Your task to perform on an android device: open app "Facebook" Image 0: 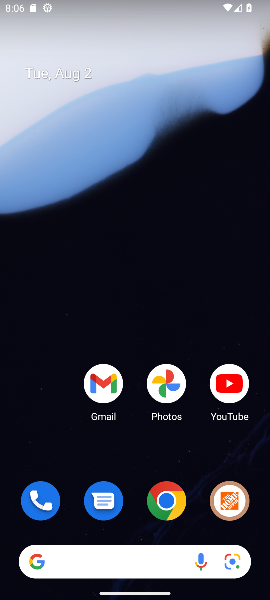
Step 0: drag from (129, 502) to (172, 189)
Your task to perform on an android device: open app "Facebook" Image 1: 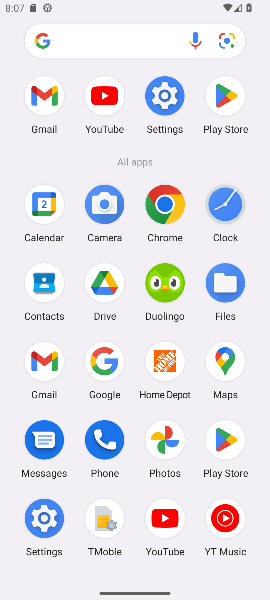
Step 1: click (224, 438)
Your task to perform on an android device: open app "Facebook" Image 2: 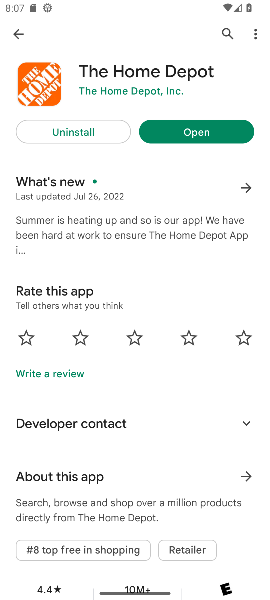
Step 2: click (228, 31)
Your task to perform on an android device: open app "Facebook" Image 3: 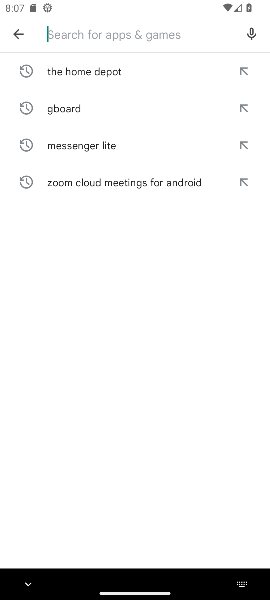
Step 3: type "Facebook"
Your task to perform on an android device: open app "Facebook" Image 4: 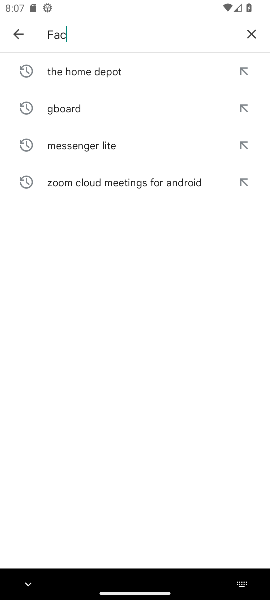
Step 4: type ""
Your task to perform on an android device: open app "Facebook" Image 5: 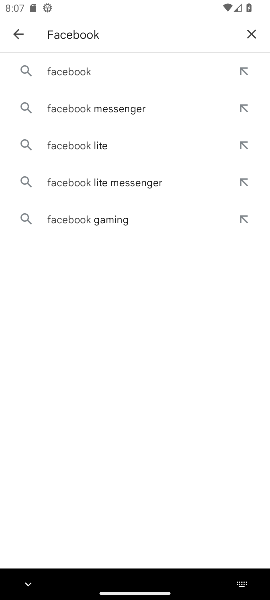
Step 5: click (116, 77)
Your task to perform on an android device: open app "Facebook" Image 6: 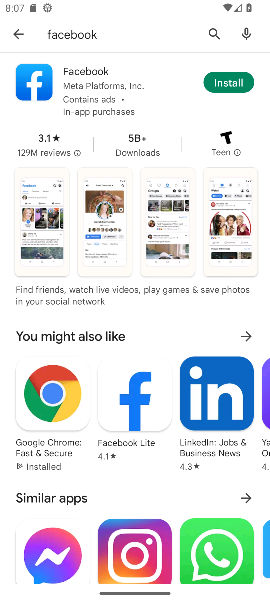
Step 6: click (95, 92)
Your task to perform on an android device: open app "Facebook" Image 7: 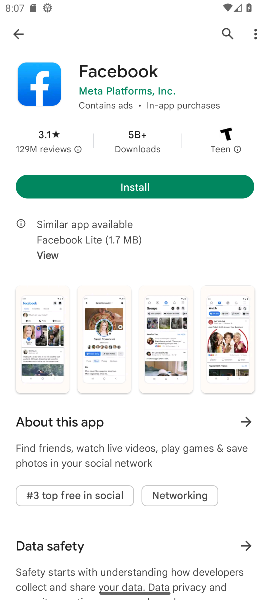
Step 7: task complete